Your task to perform on an android device: Go to eBay Image 0: 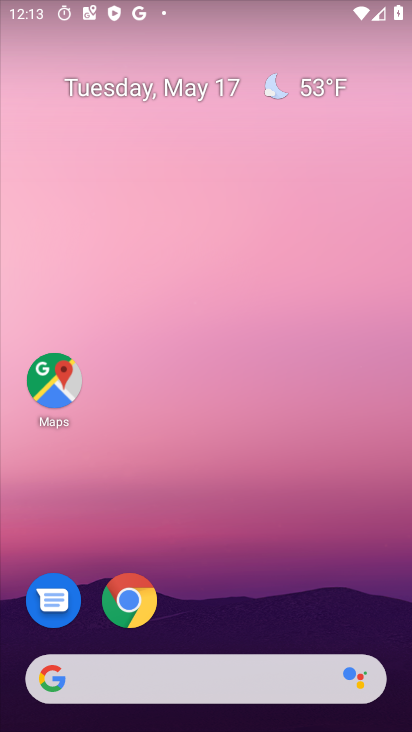
Step 0: click (114, 596)
Your task to perform on an android device: Go to eBay Image 1: 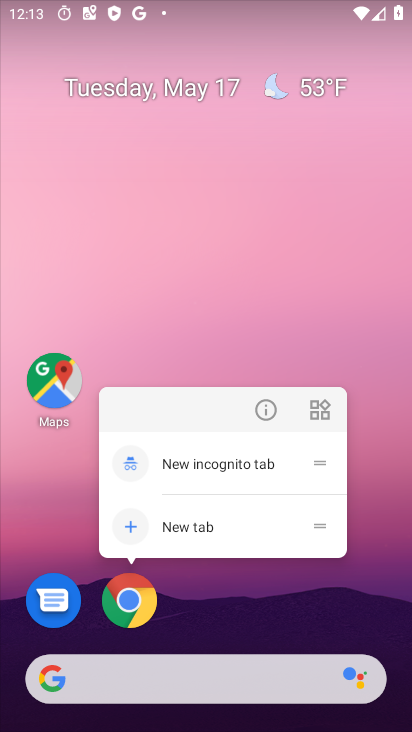
Step 1: click (117, 599)
Your task to perform on an android device: Go to eBay Image 2: 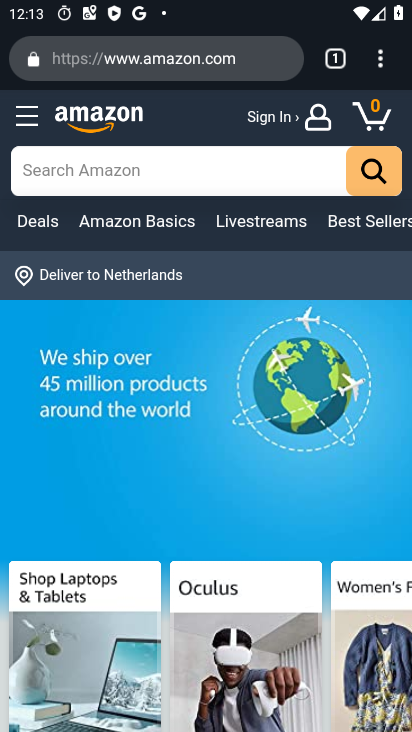
Step 2: click (152, 58)
Your task to perform on an android device: Go to eBay Image 3: 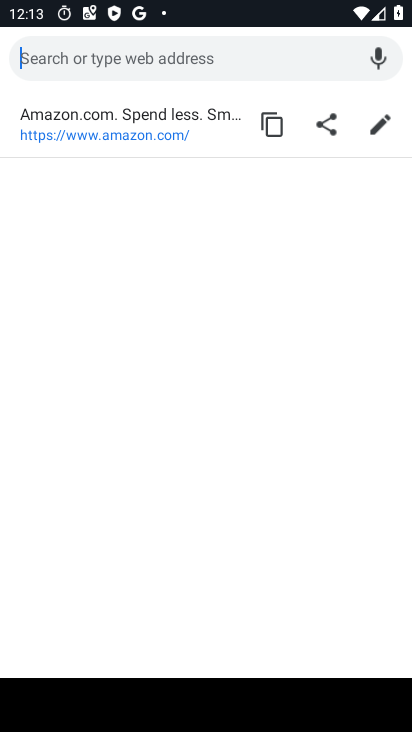
Step 3: type "ebay"
Your task to perform on an android device: Go to eBay Image 4: 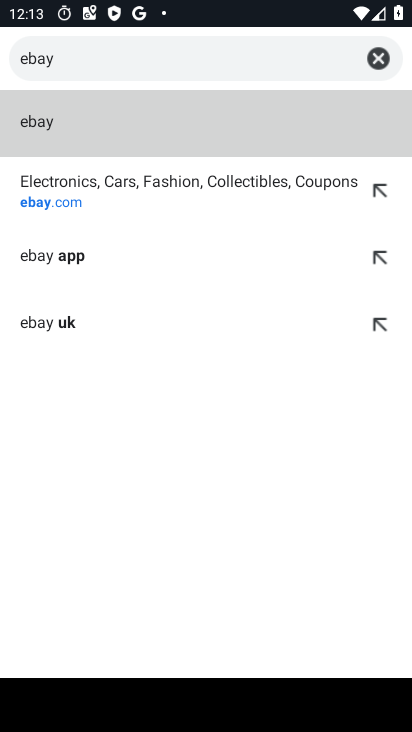
Step 4: click (29, 129)
Your task to perform on an android device: Go to eBay Image 5: 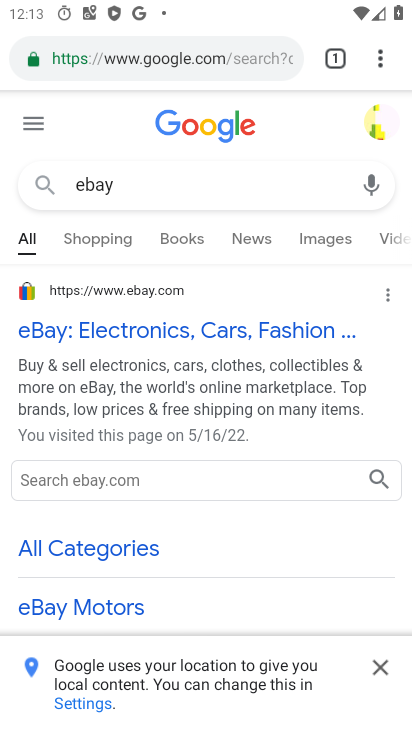
Step 5: click (77, 335)
Your task to perform on an android device: Go to eBay Image 6: 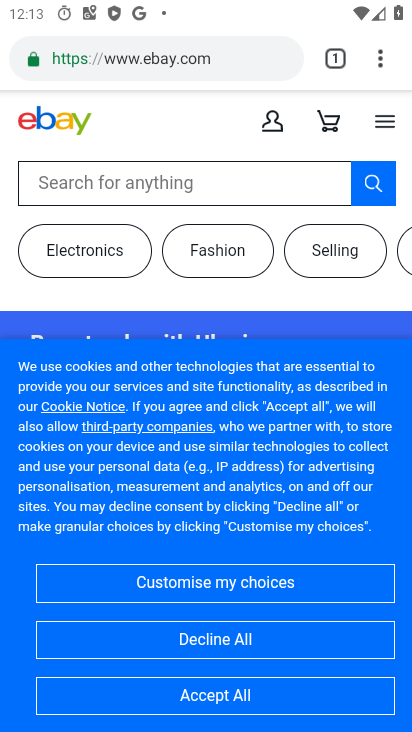
Step 6: task complete